Your task to perform on an android device: turn off translation in the chrome app Image 0: 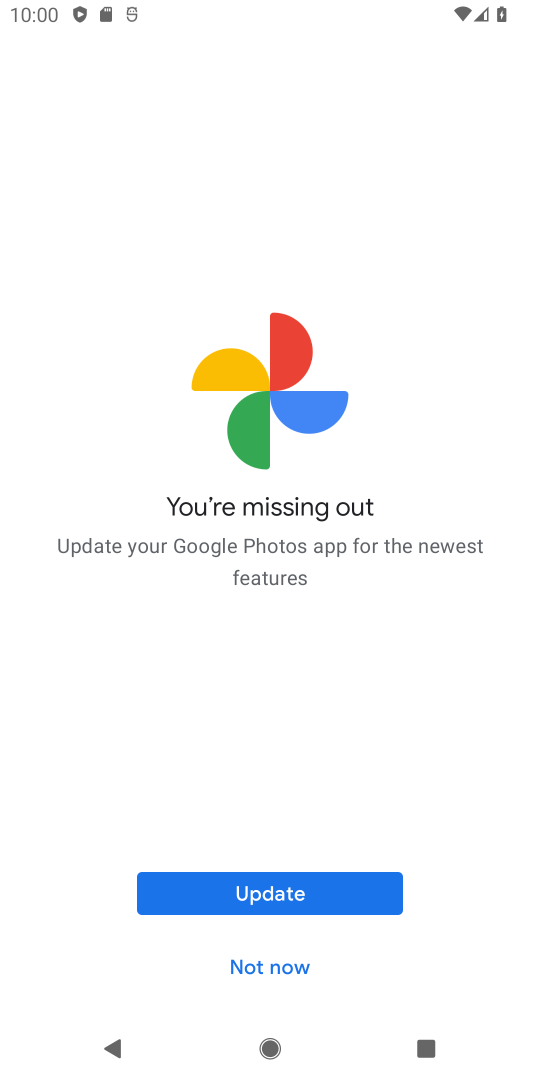
Step 0: click (275, 958)
Your task to perform on an android device: turn off translation in the chrome app Image 1: 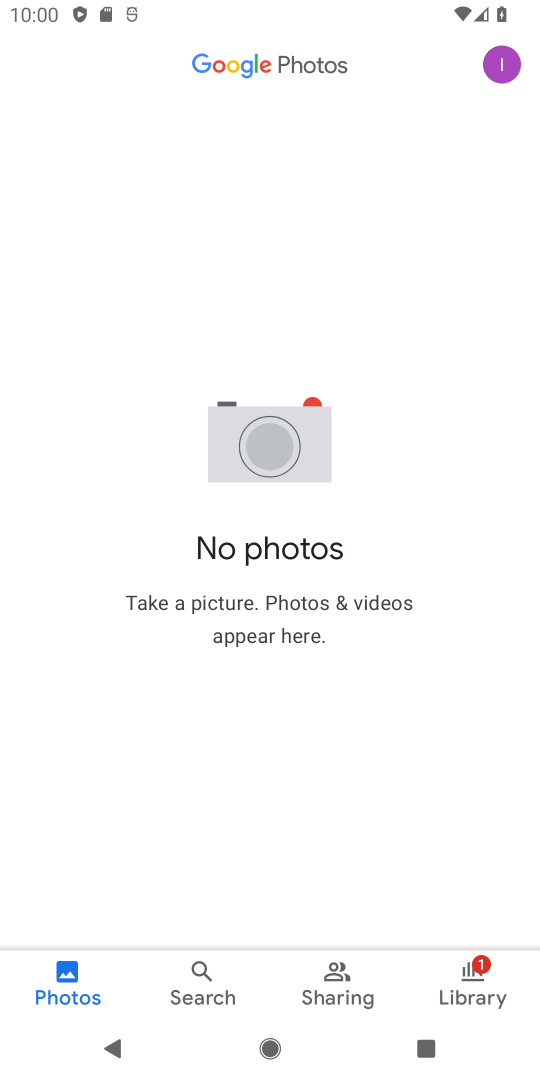
Step 1: press home button
Your task to perform on an android device: turn off translation in the chrome app Image 2: 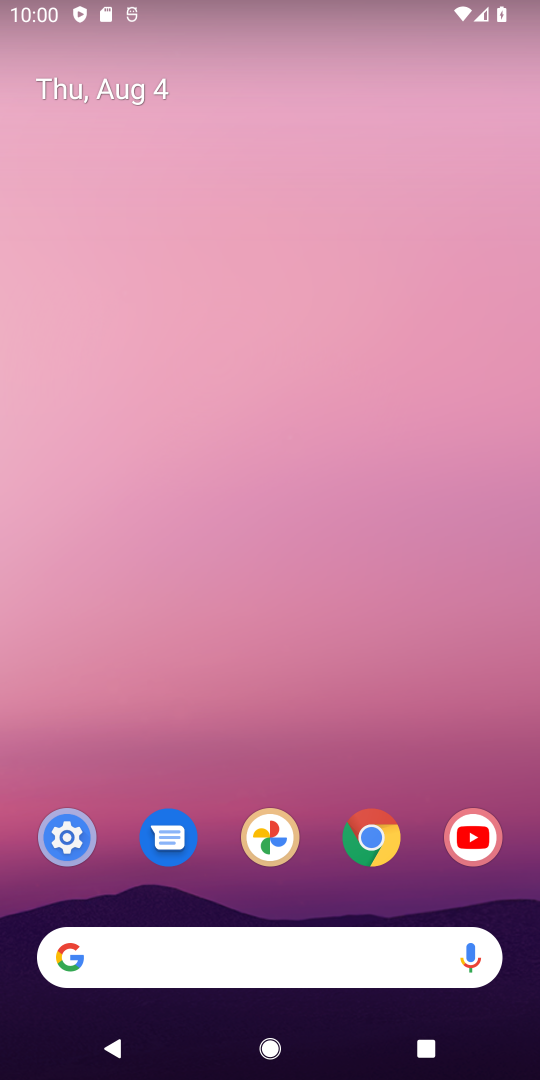
Step 2: drag from (337, 900) to (51, 518)
Your task to perform on an android device: turn off translation in the chrome app Image 3: 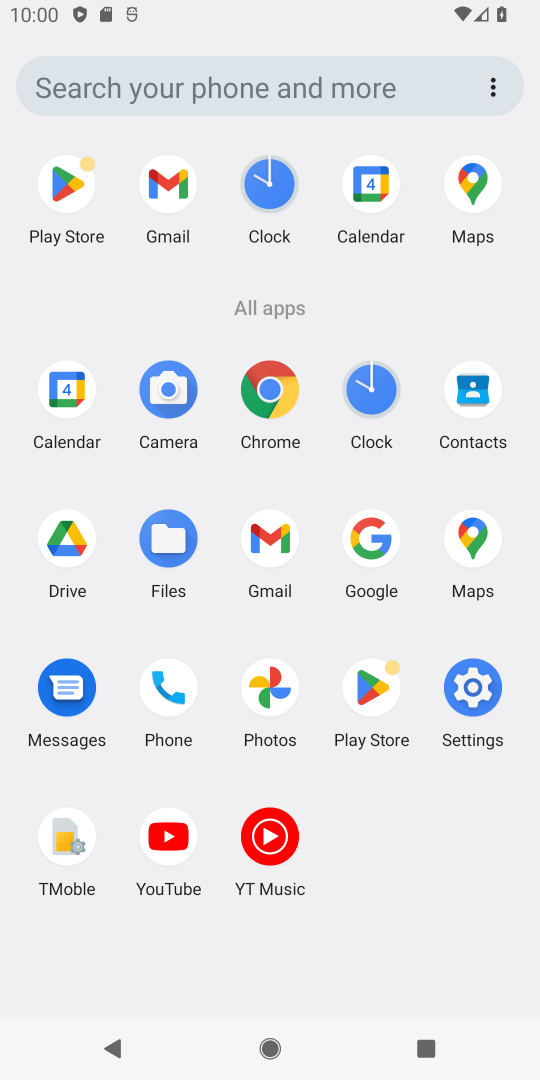
Step 3: click (263, 390)
Your task to perform on an android device: turn off translation in the chrome app Image 4: 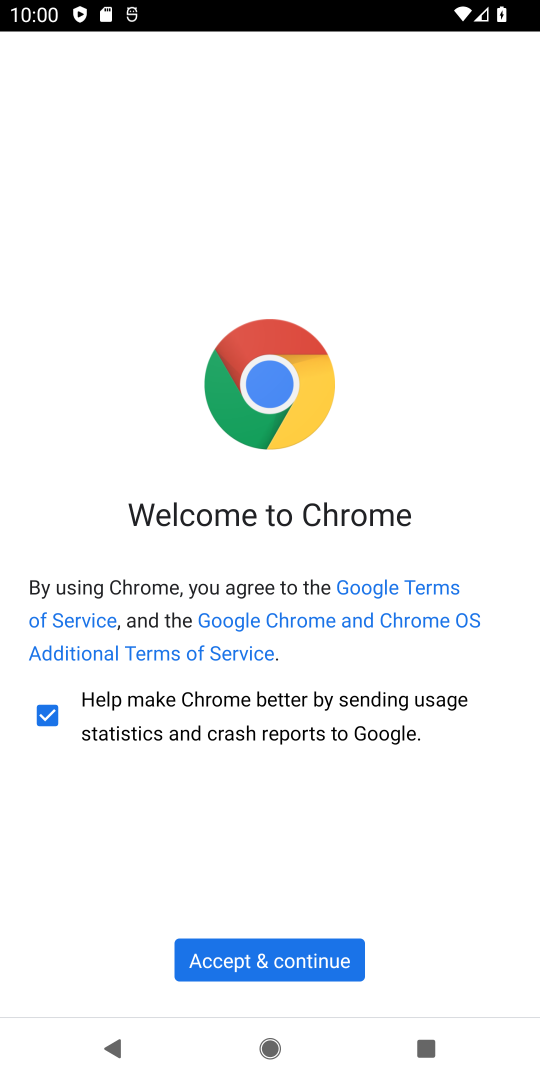
Step 4: click (258, 955)
Your task to perform on an android device: turn off translation in the chrome app Image 5: 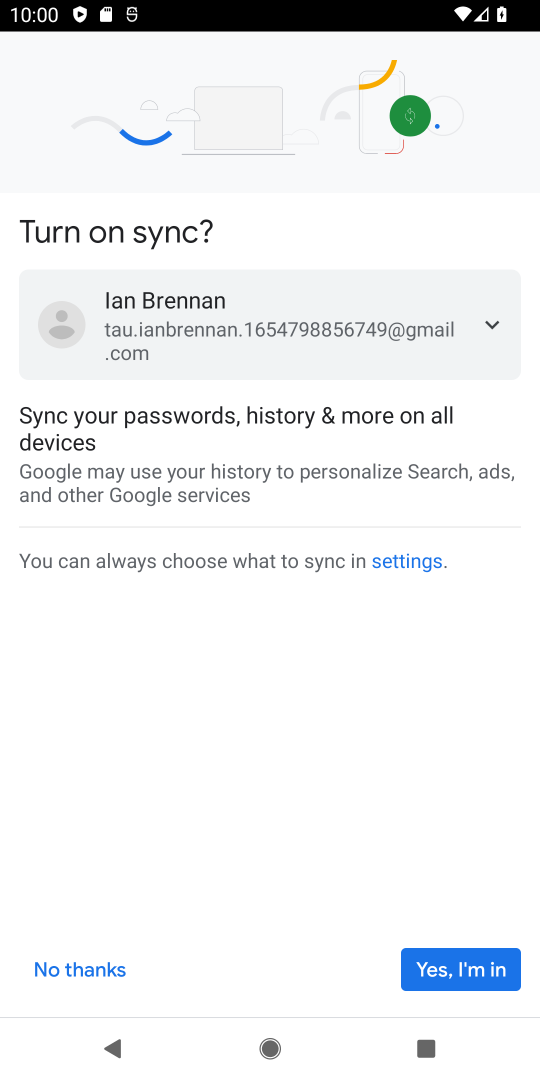
Step 5: click (461, 963)
Your task to perform on an android device: turn off translation in the chrome app Image 6: 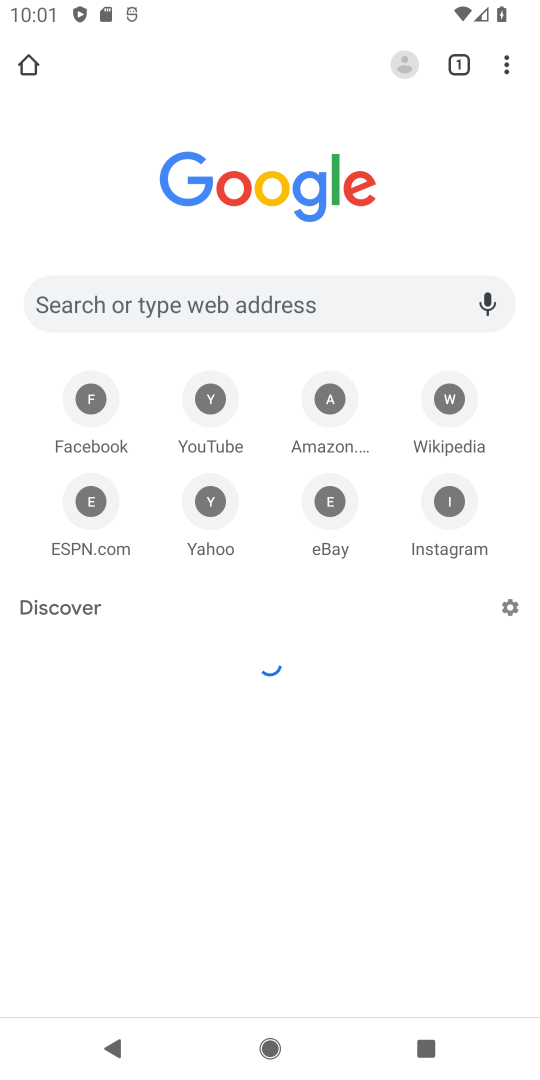
Step 6: click (460, 959)
Your task to perform on an android device: turn off translation in the chrome app Image 7: 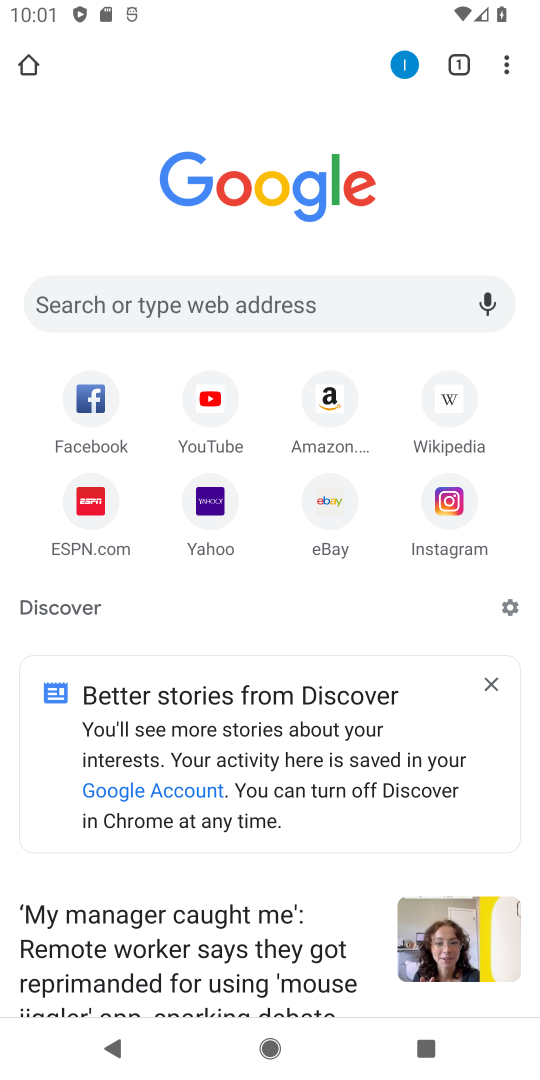
Step 7: click (502, 67)
Your task to perform on an android device: turn off translation in the chrome app Image 8: 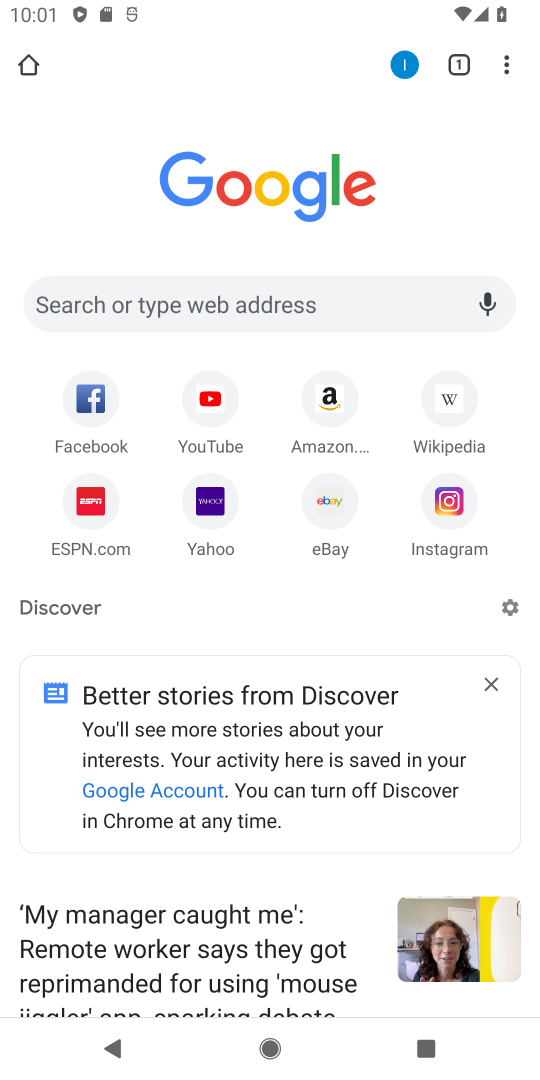
Step 8: click (496, 65)
Your task to perform on an android device: turn off translation in the chrome app Image 9: 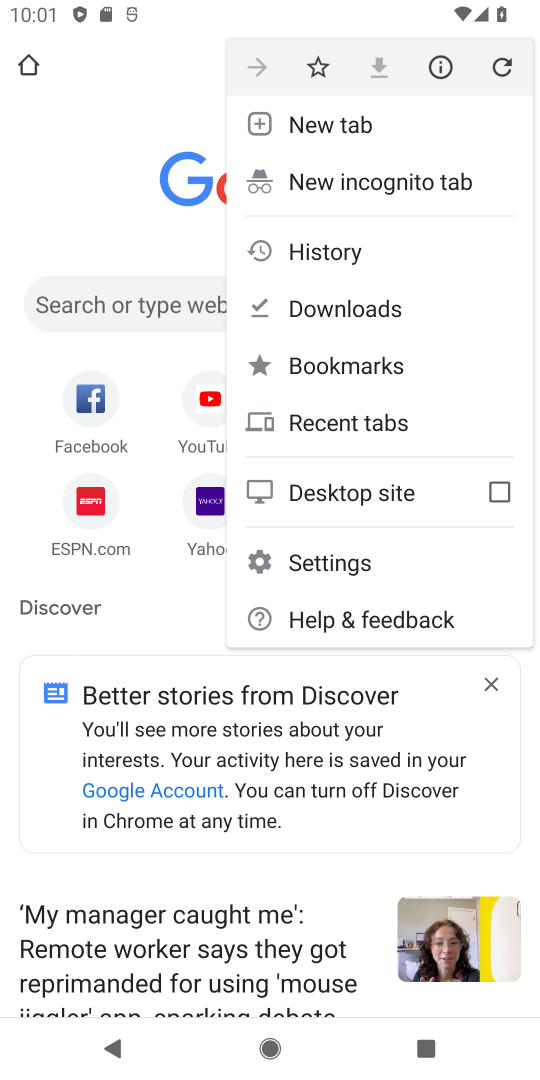
Step 9: click (340, 560)
Your task to perform on an android device: turn off translation in the chrome app Image 10: 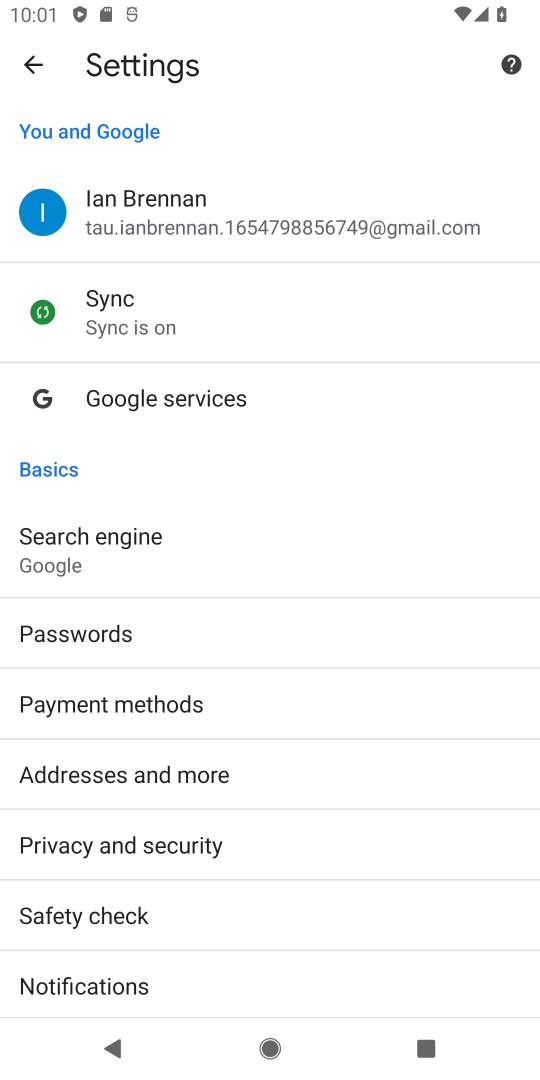
Step 10: drag from (185, 938) to (220, 212)
Your task to perform on an android device: turn off translation in the chrome app Image 11: 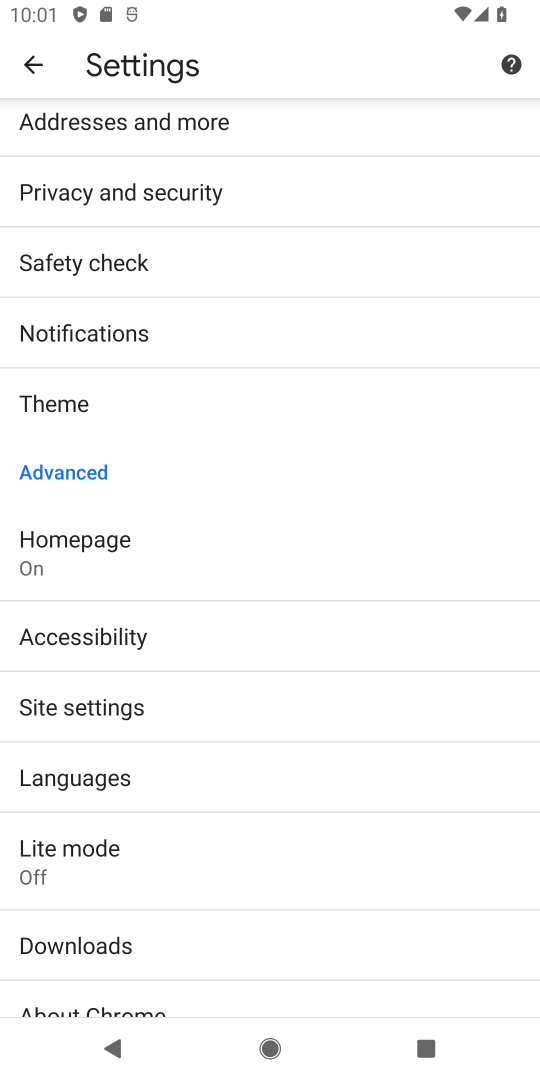
Step 11: click (130, 779)
Your task to perform on an android device: turn off translation in the chrome app Image 12: 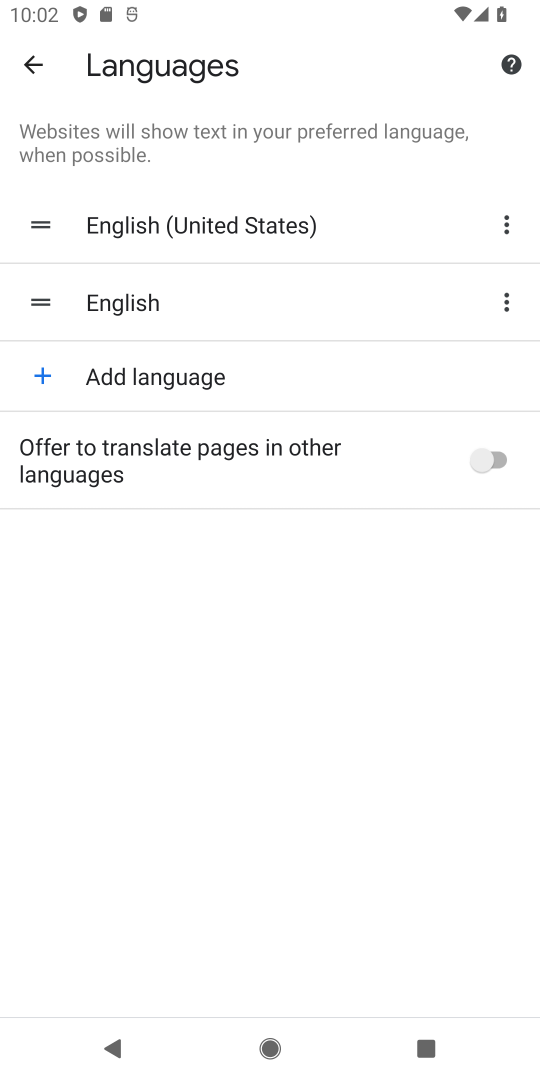
Step 12: task complete